Your task to perform on an android device: Open settings Image 0: 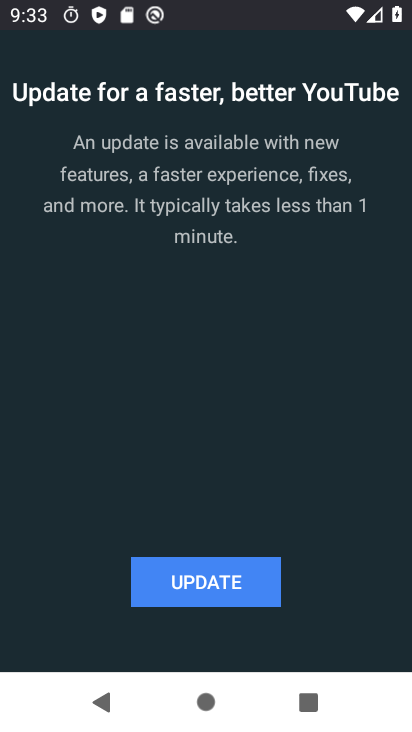
Step 0: press home button
Your task to perform on an android device: Open settings Image 1: 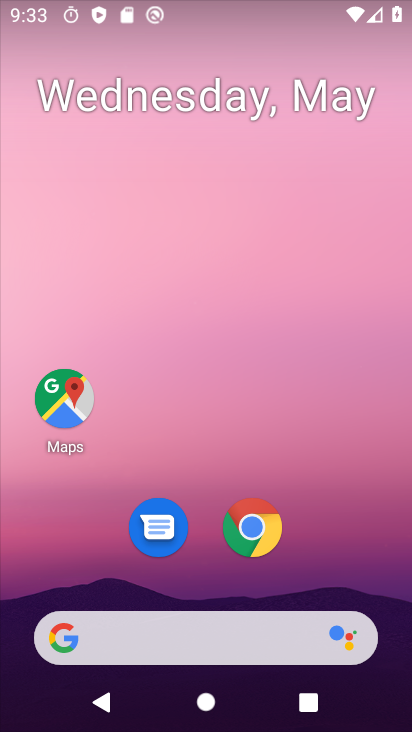
Step 1: drag from (321, 538) to (187, 51)
Your task to perform on an android device: Open settings Image 2: 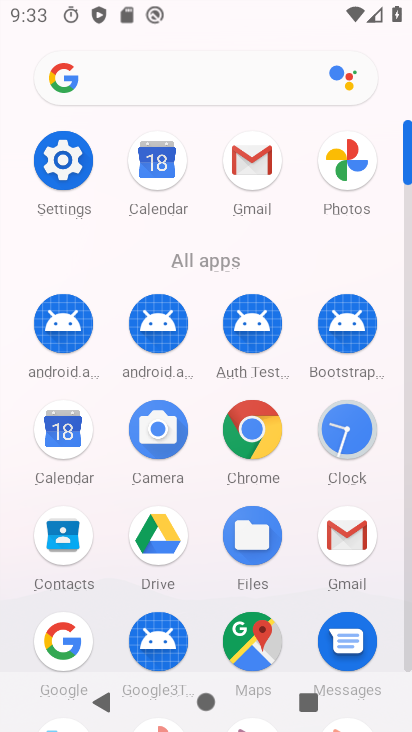
Step 2: click (55, 143)
Your task to perform on an android device: Open settings Image 3: 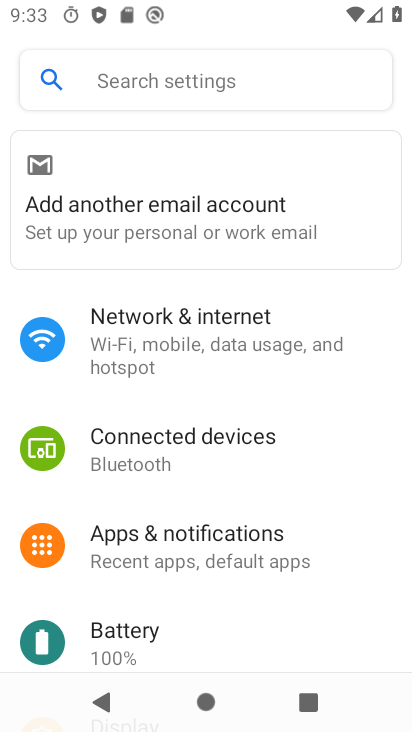
Step 3: task complete